Your task to perform on an android device: Open Google Chrome and click the shortcut for Amazon.com Image 0: 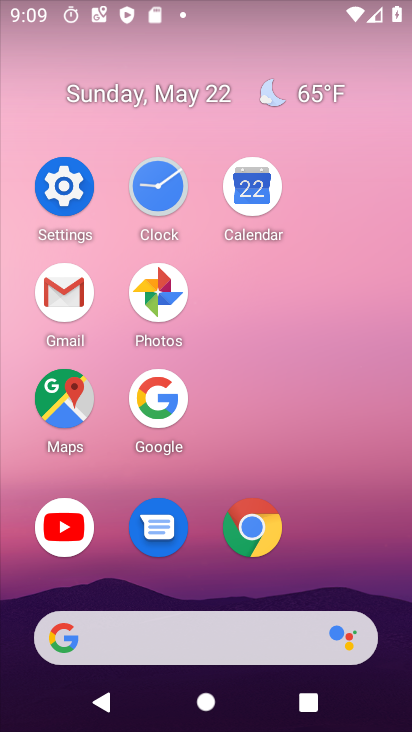
Step 0: click (250, 519)
Your task to perform on an android device: Open Google Chrome and click the shortcut for Amazon.com Image 1: 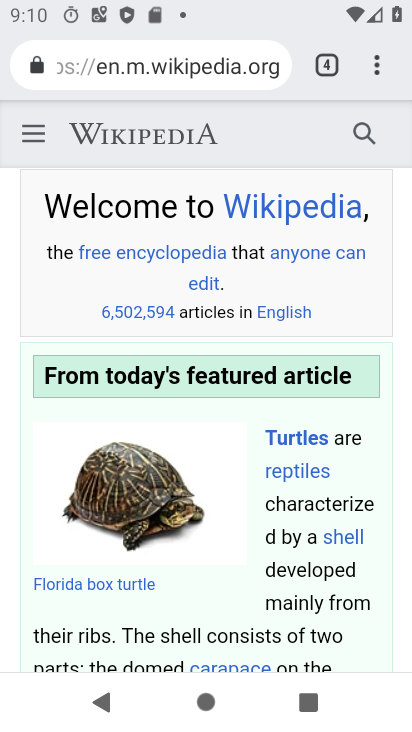
Step 1: click (320, 76)
Your task to perform on an android device: Open Google Chrome and click the shortcut for Amazon.com Image 2: 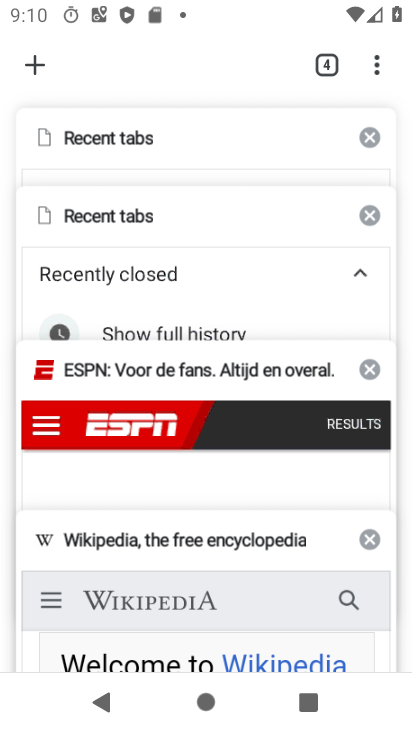
Step 2: click (36, 67)
Your task to perform on an android device: Open Google Chrome and click the shortcut for Amazon.com Image 3: 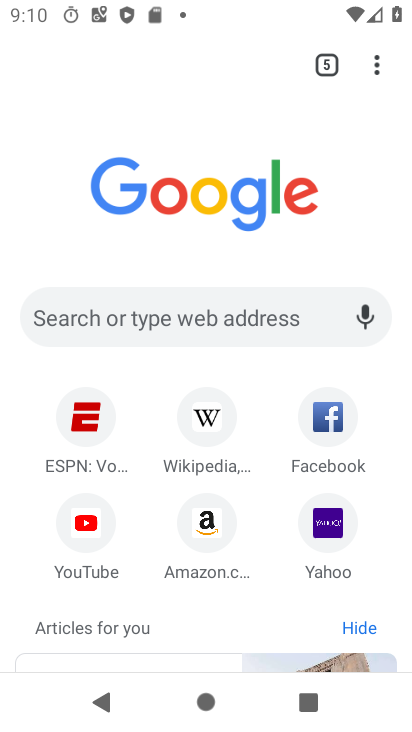
Step 3: click (223, 545)
Your task to perform on an android device: Open Google Chrome and click the shortcut for Amazon.com Image 4: 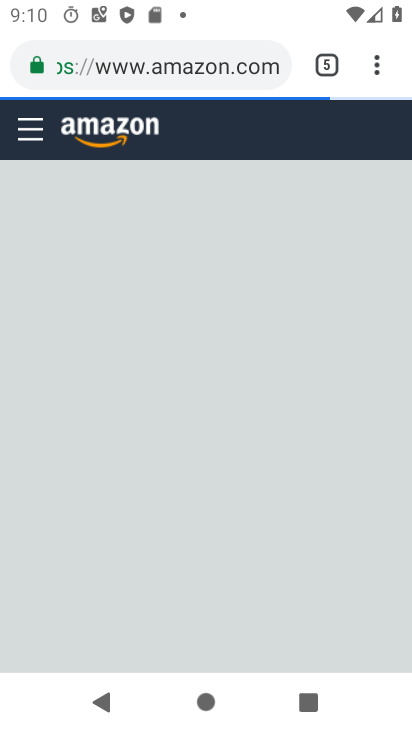
Step 4: click (381, 69)
Your task to perform on an android device: Open Google Chrome and click the shortcut for Amazon.com Image 5: 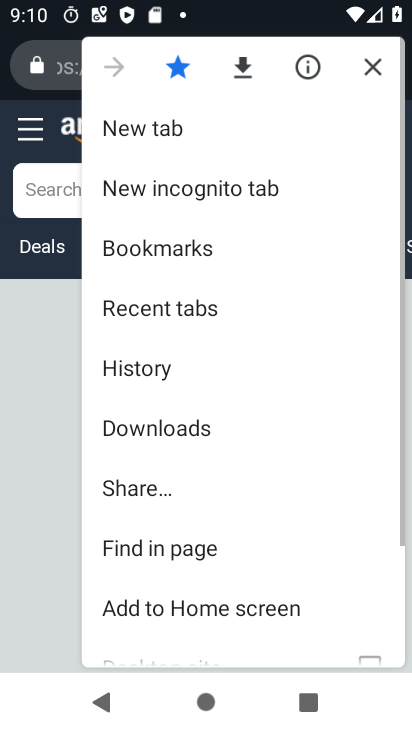
Step 5: drag from (287, 499) to (264, 188)
Your task to perform on an android device: Open Google Chrome and click the shortcut for Amazon.com Image 6: 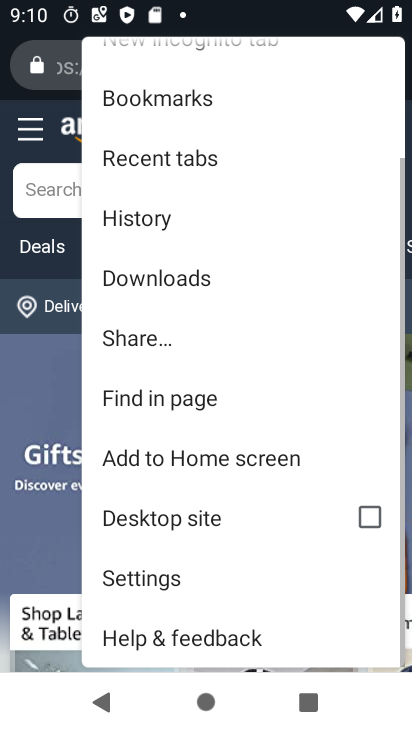
Step 6: click (291, 467)
Your task to perform on an android device: Open Google Chrome and click the shortcut for Amazon.com Image 7: 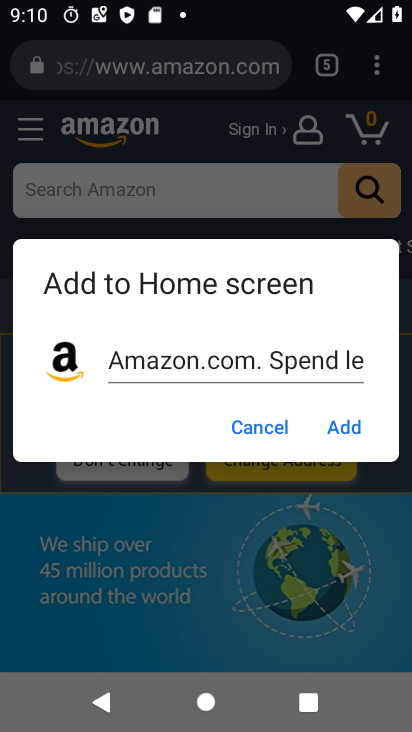
Step 7: click (343, 423)
Your task to perform on an android device: Open Google Chrome and click the shortcut for Amazon.com Image 8: 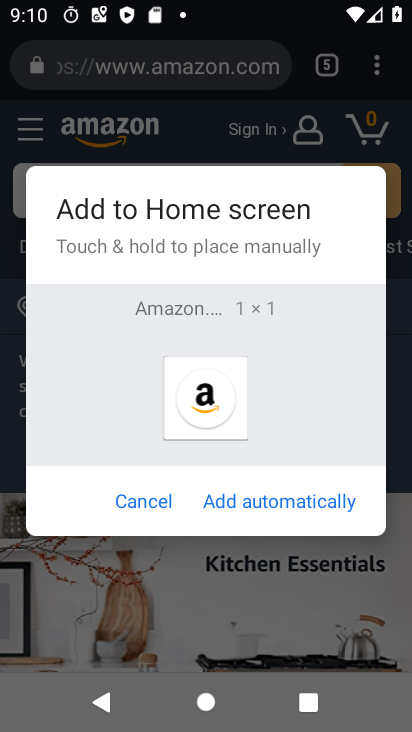
Step 8: click (255, 499)
Your task to perform on an android device: Open Google Chrome and click the shortcut for Amazon.com Image 9: 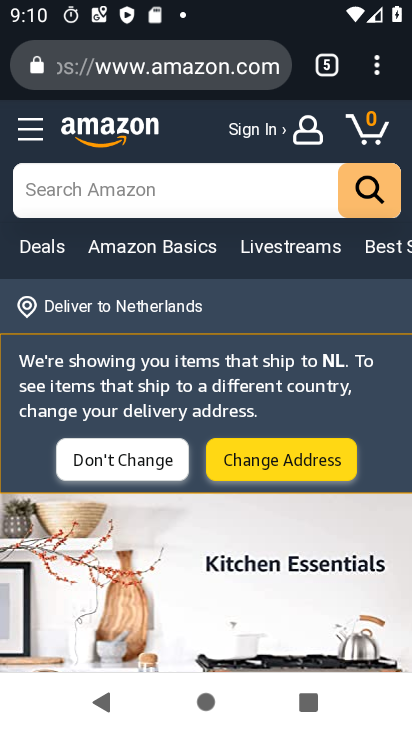
Step 9: task complete